Your task to perform on an android device: Turn off the flashlight Image 0: 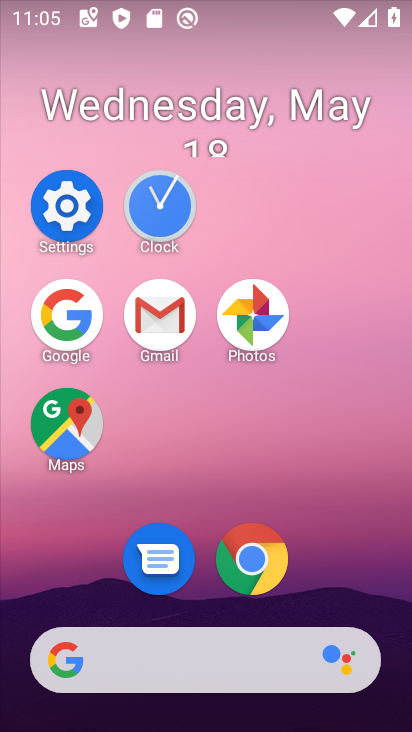
Step 0: drag from (265, 0) to (298, 441)
Your task to perform on an android device: Turn off the flashlight Image 1: 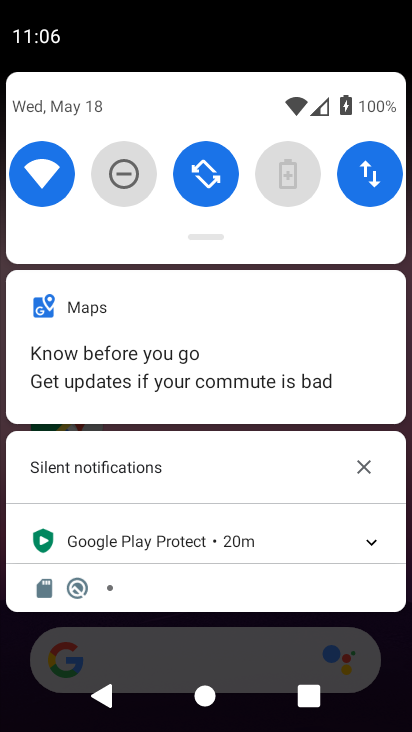
Step 1: task complete